Your task to perform on an android device: manage bookmarks in the chrome app Image 0: 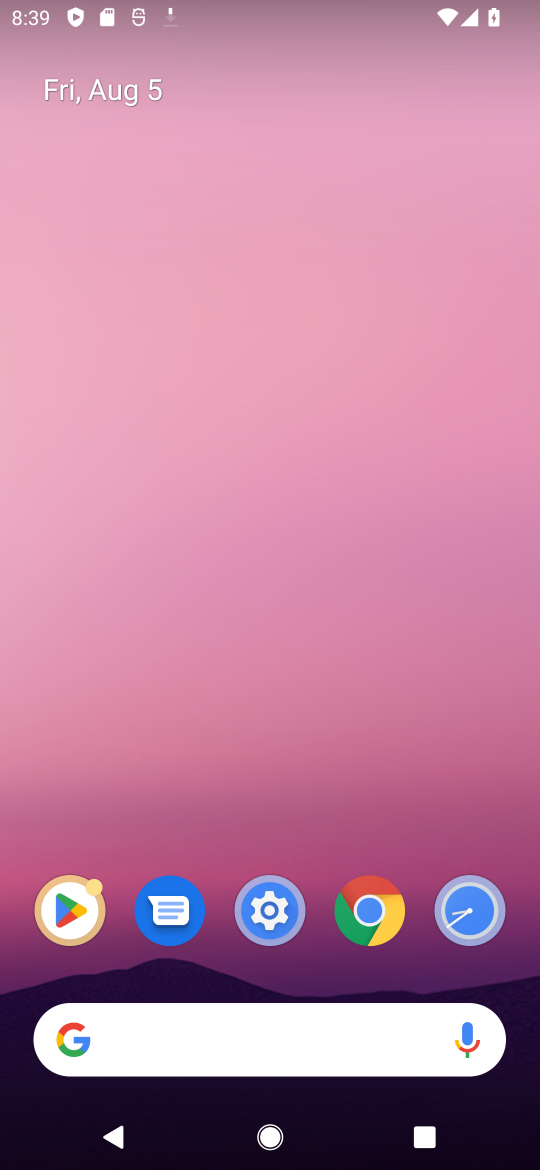
Step 0: click (358, 903)
Your task to perform on an android device: manage bookmarks in the chrome app Image 1: 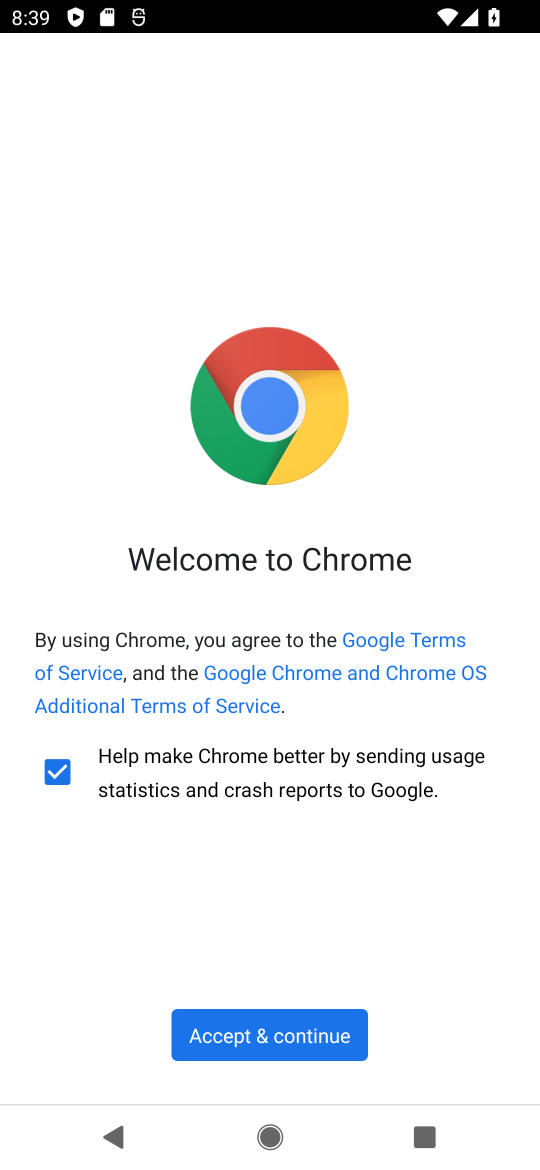
Step 1: click (328, 1028)
Your task to perform on an android device: manage bookmarks in the chrome app Image 2: 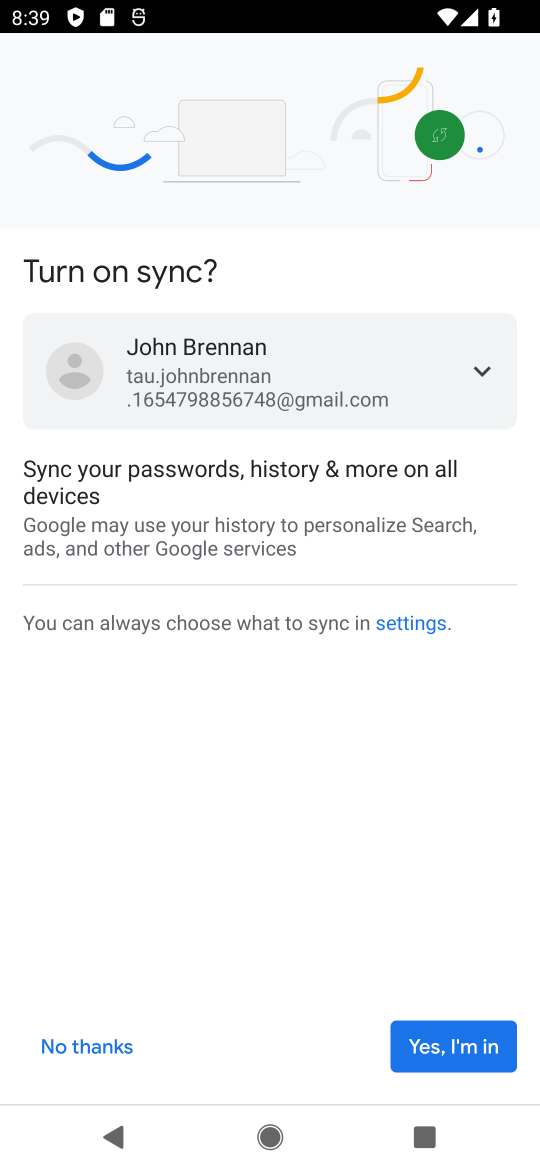
Step 2: click (463, 1032)
Your task to perform on an android device: manage bookmarks in the chrome app Image 3: 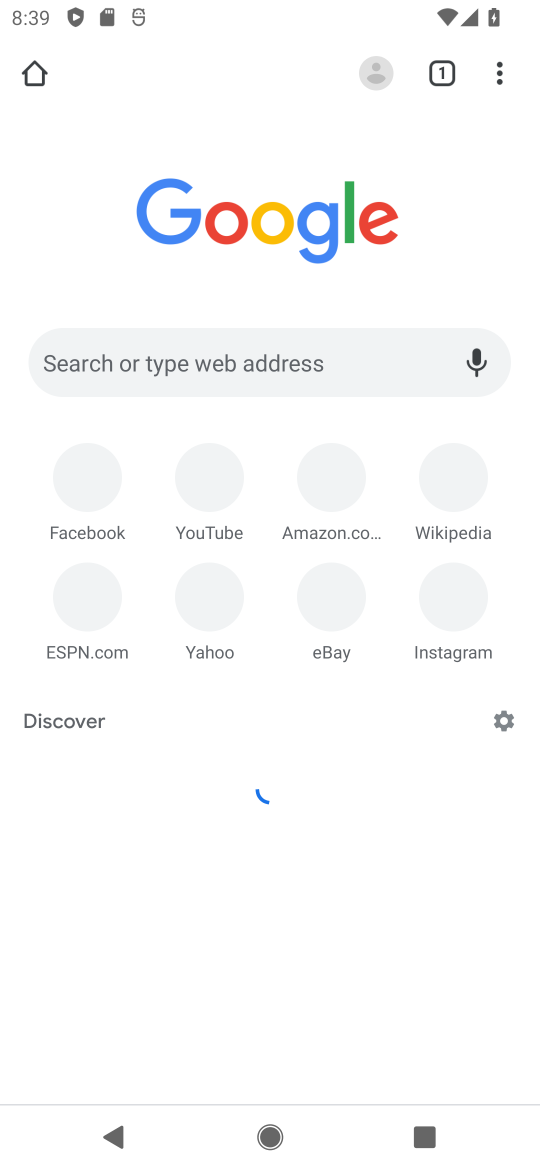
Step 3: drag from (509, 76) to (322, 426)
Your task to perform on an android device: manage bookmarks in the chrome app Image 4: 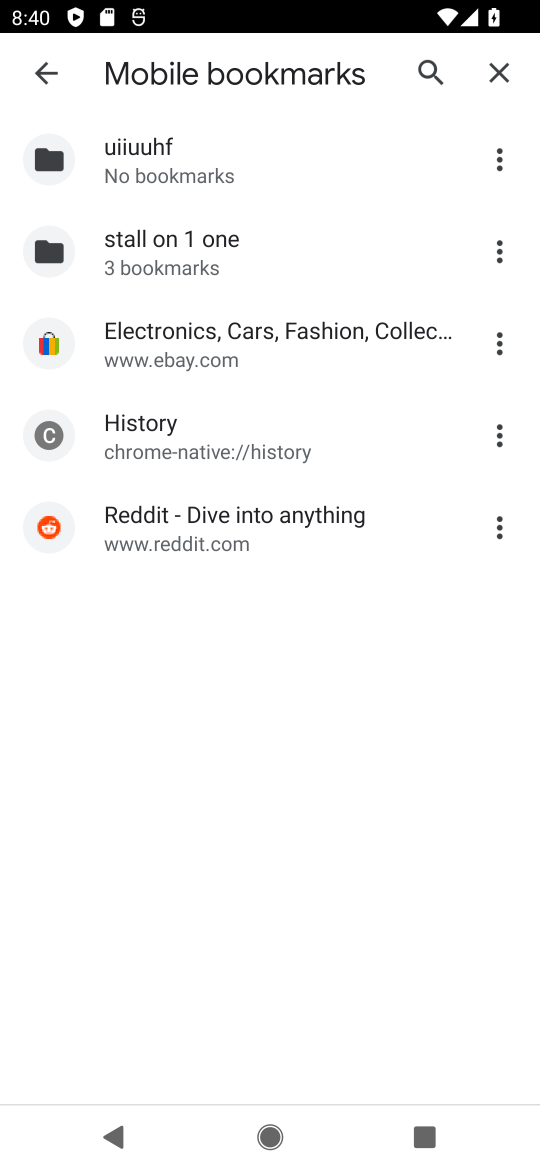
Step 4: click (500, 536)
Your task to perform on an android device: manage bookmarks in the chrome app Image 5: 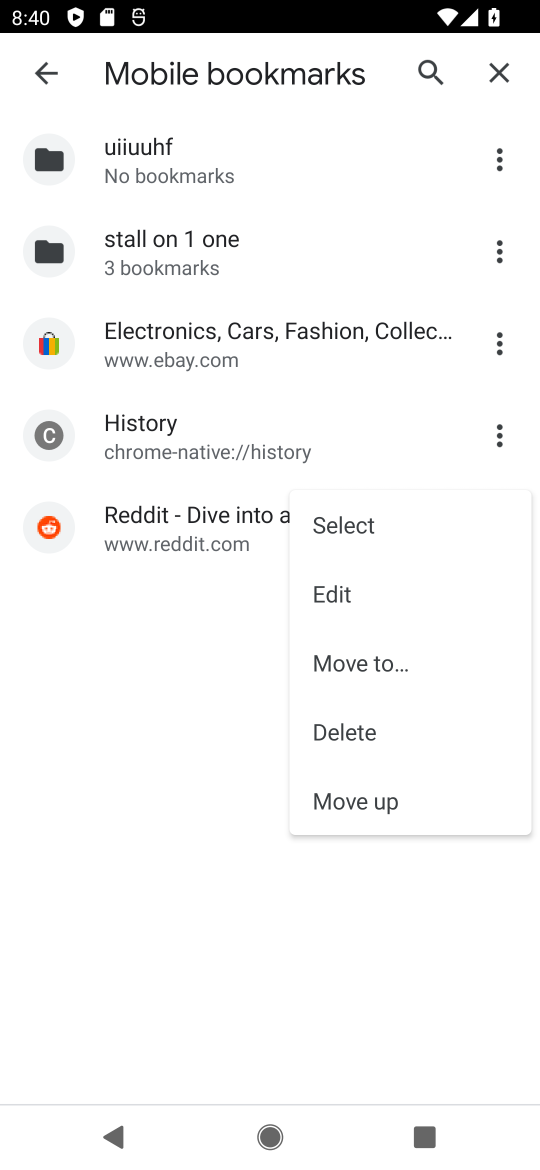
Step 5: click (361, 742)
Your task to perform on an android device: manage bookmarks in the chrome app Image 6: 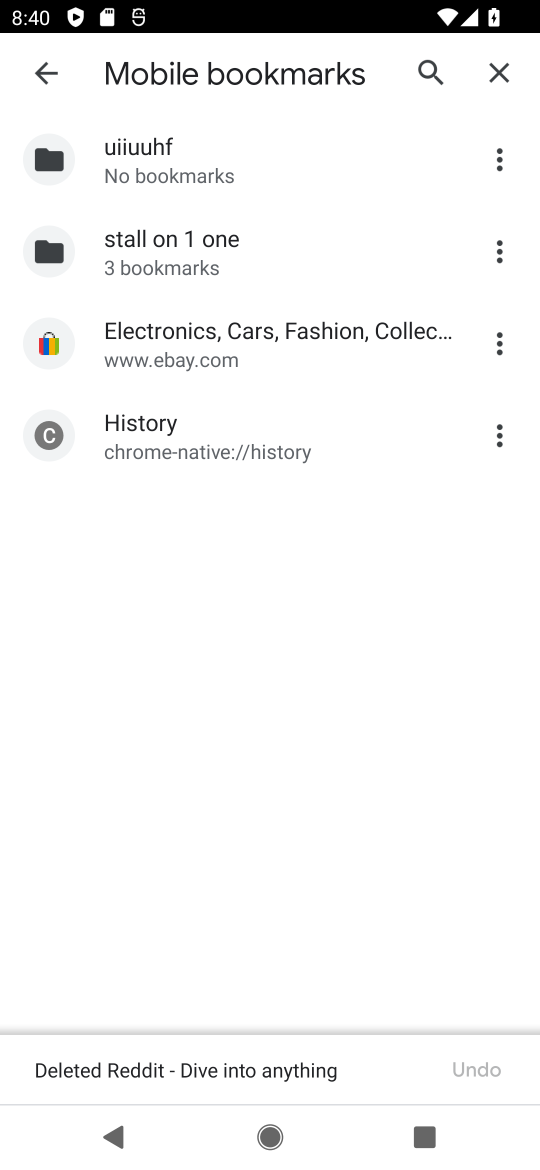
Step 6: task complete